Your task to perform on an android device: Go to calendar. Show me events next week Image 0: 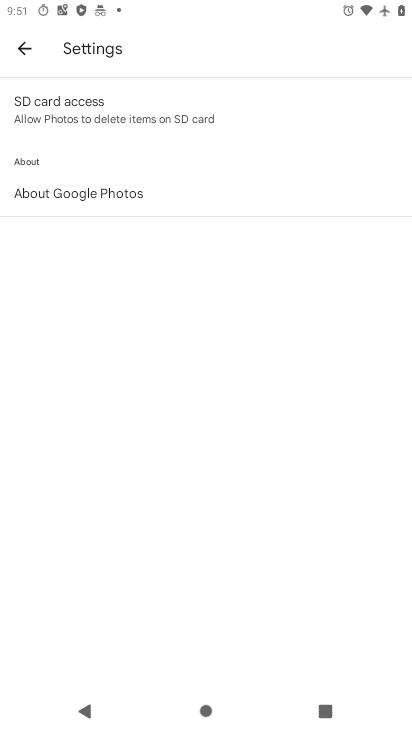
Step 0: press home button
Your task to perform on an android device: Go to calendar. Show me events next week Image 1: 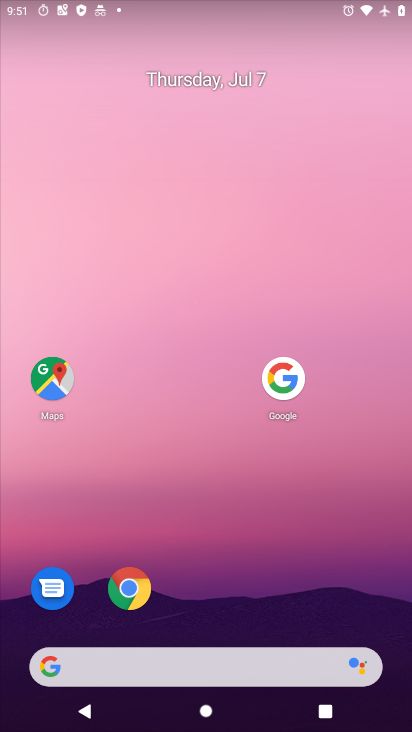
Step 1: drag from (127, 669) to (242, 119)
Your task to perform on an android device: Go to calendar. Show me events next week Image 2: 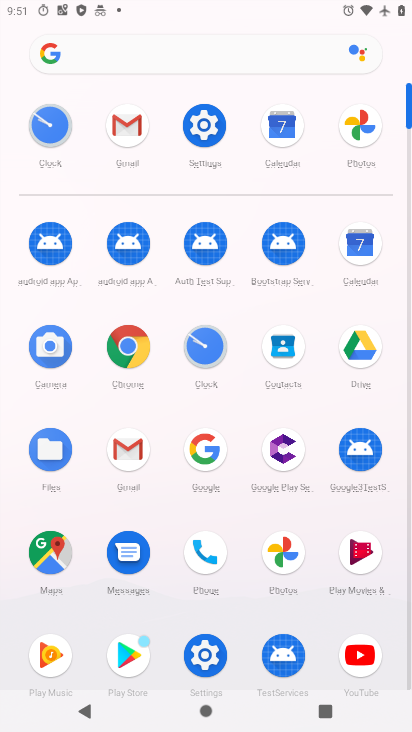
Step 2: click (357, 253)
Your task to perform on an android device: Go to calendar. Show me events next week Image 3: 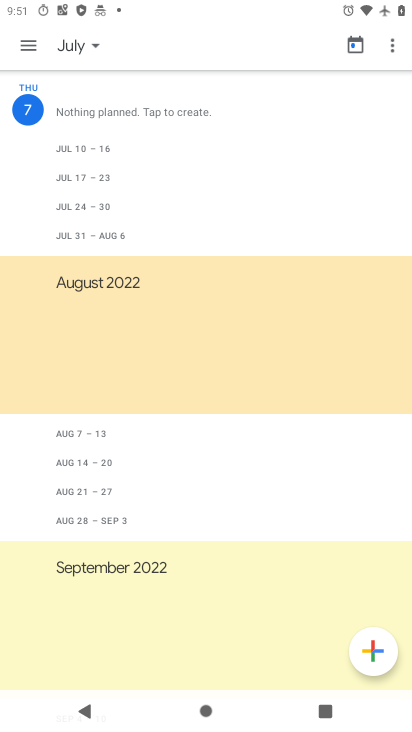
Step 3: click (72, 45)
Your task to perform on an android device: Go to calendar. Show me events next week Image 4: 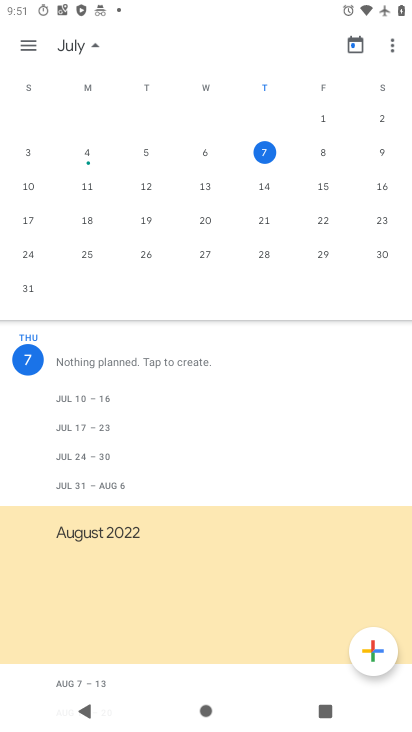
Step 4: click (27, 187)
Your task to perform on an android device: Go to calendar. Show me events next week Image 5: 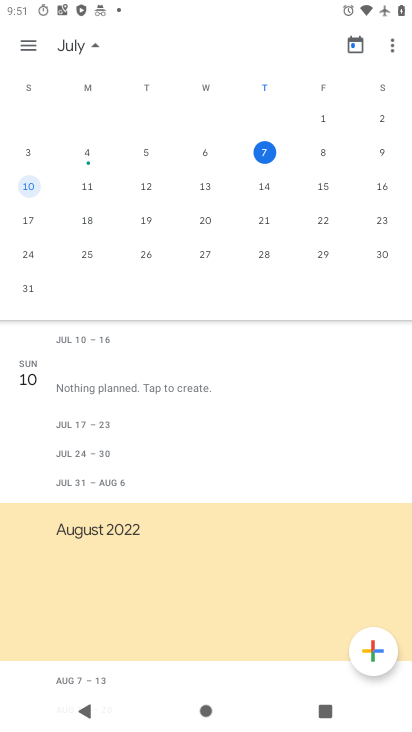
Step 5: click (29, 45)
Your task to perform on an android device: Go to calendar. Show me events next week Image 6: 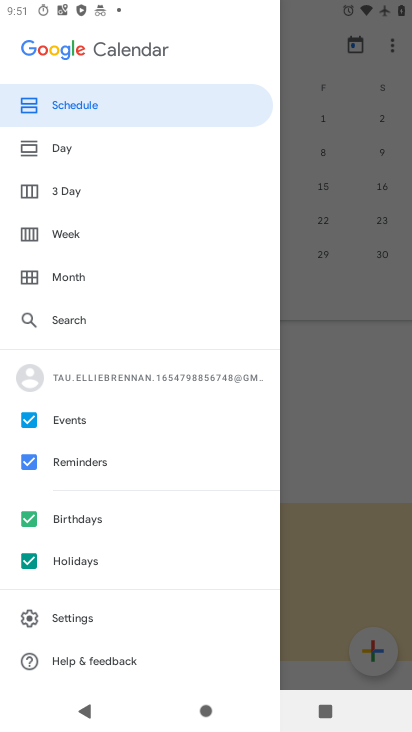
Step 6: click (66, 233)
Your task to perform on an android device: Go to calendar. Show me events next week Image 7: 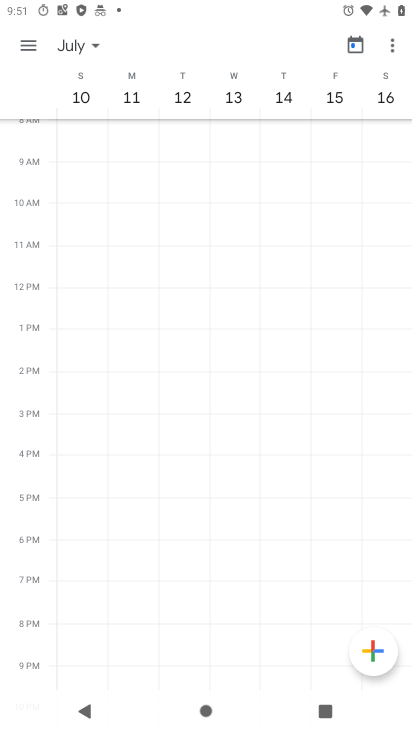
Step 7: click (28, 41)
Your task to perform on an android device: Go to calendar. Show me events next week Image 8: 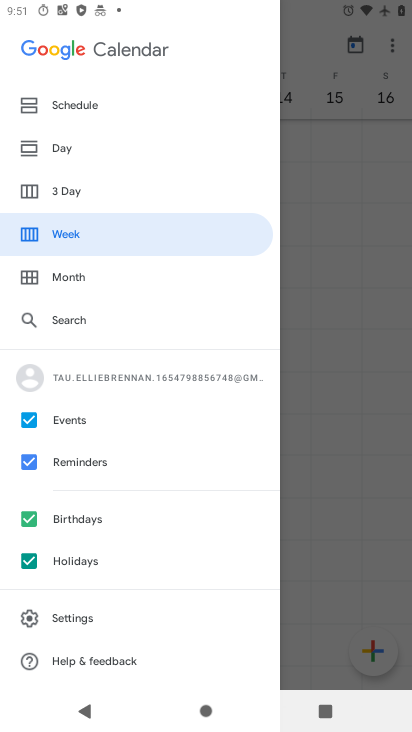
Step 8: click (85, 107)
Your task to perform on an android device: Go to calendar. Show me events next week Image 9: 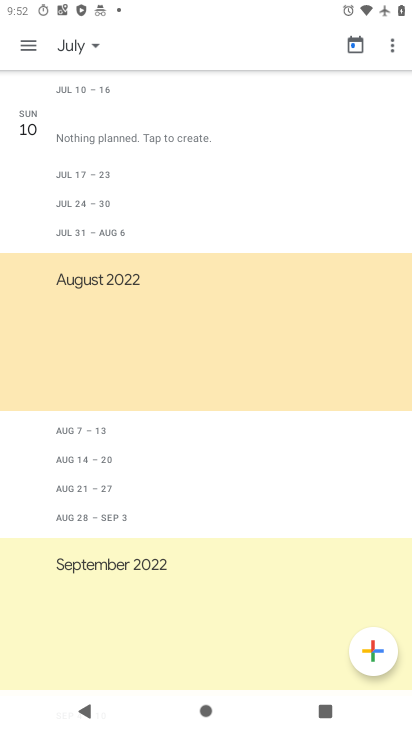
Step 9: task complete